Your task to perform on an android device: Open notification settings Image 0: 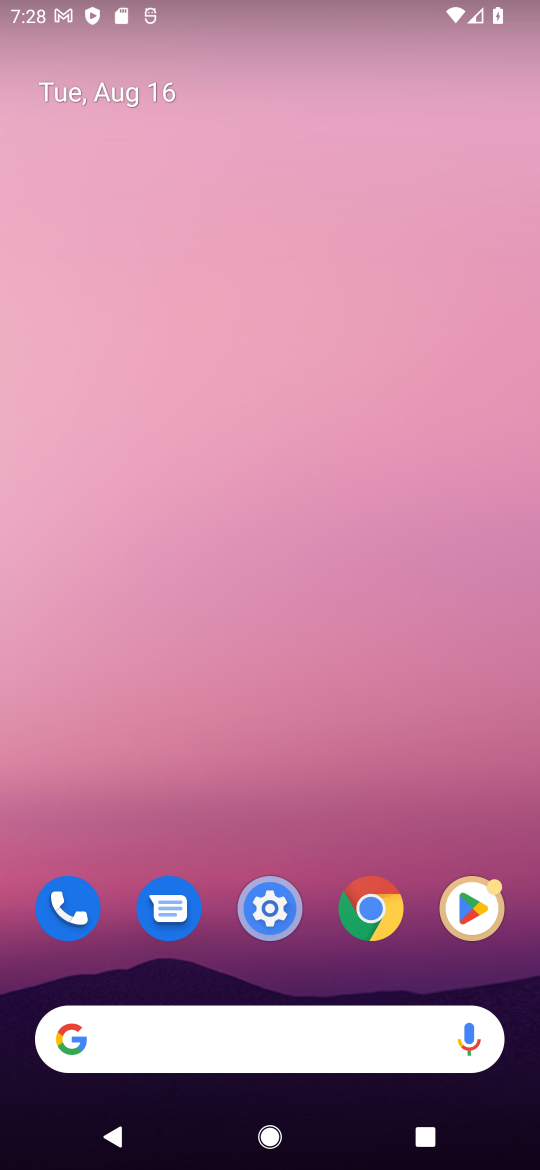
Step 0: click (271, 917)
Your task to perform on an android device: Open notification settings Image 1: 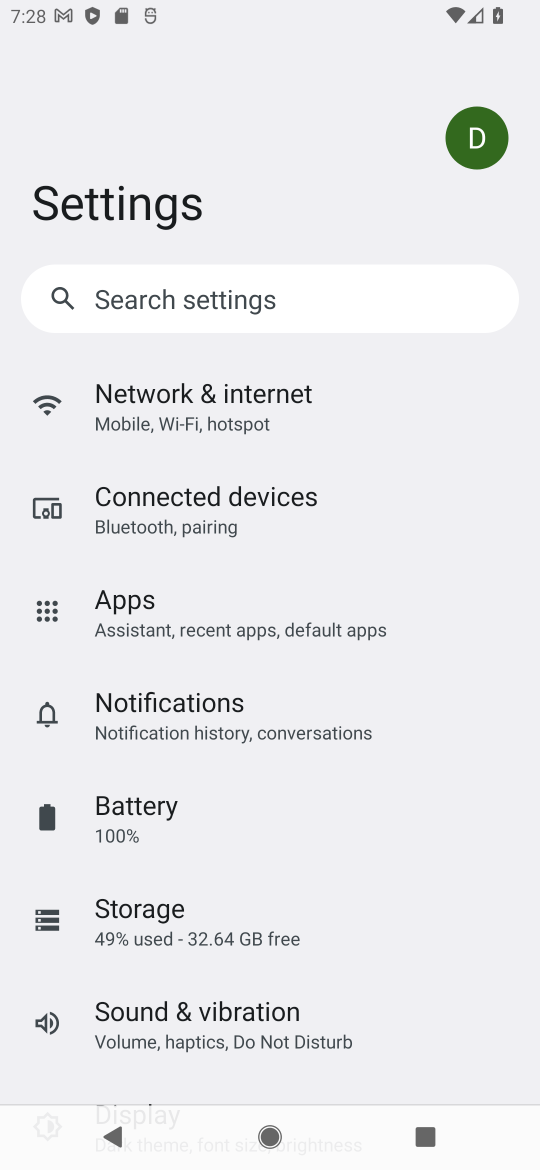
Step 1: click (194, 729)
Your task to perform on an android device: Open notification settings Image 2: 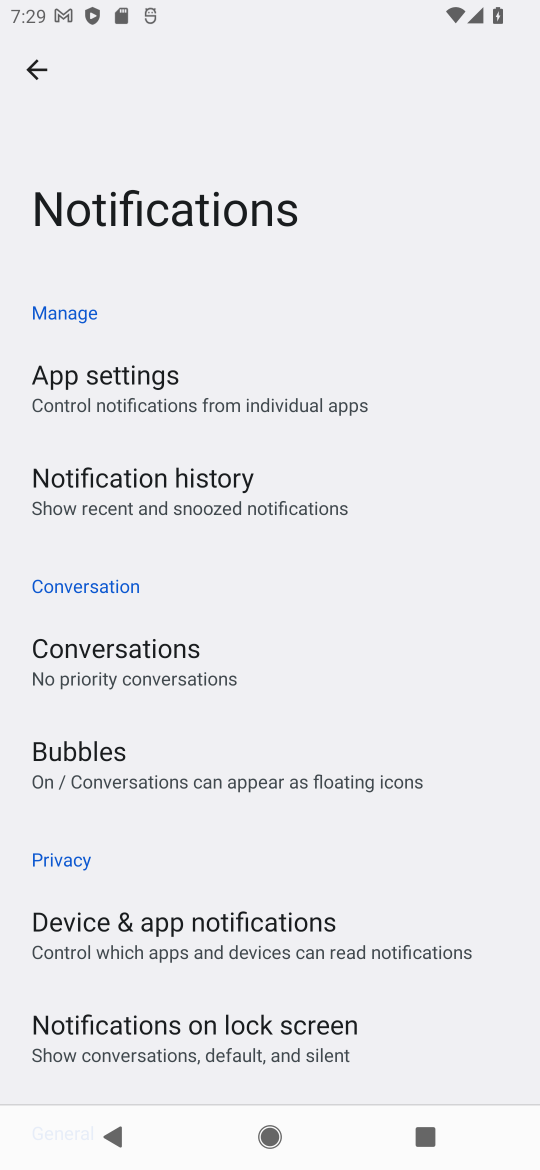
Step 2: task complete